Your task to perform on an android device: Open the map Image 0: 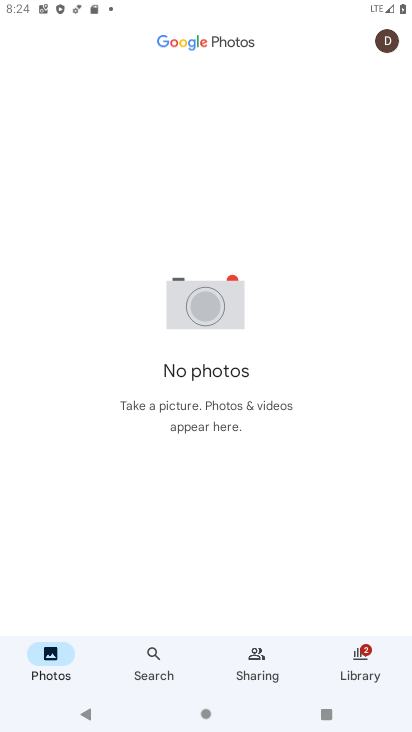
Step 0: press home button
Your task to perform on an android device: Open the map Image 1: 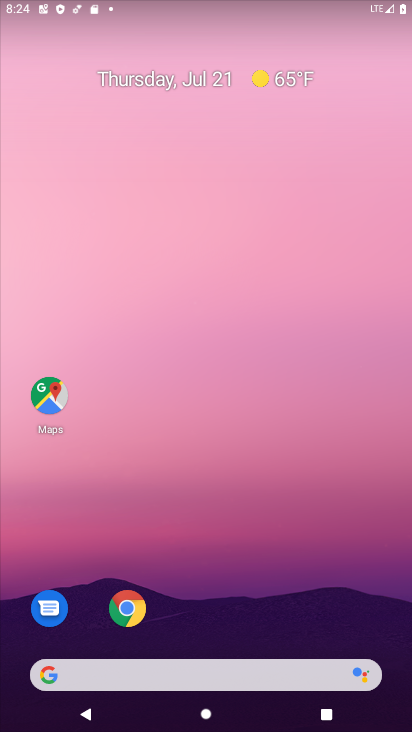
Step 1: click (48, 395)
Your task to perform on an android device: Open the map Image 2: 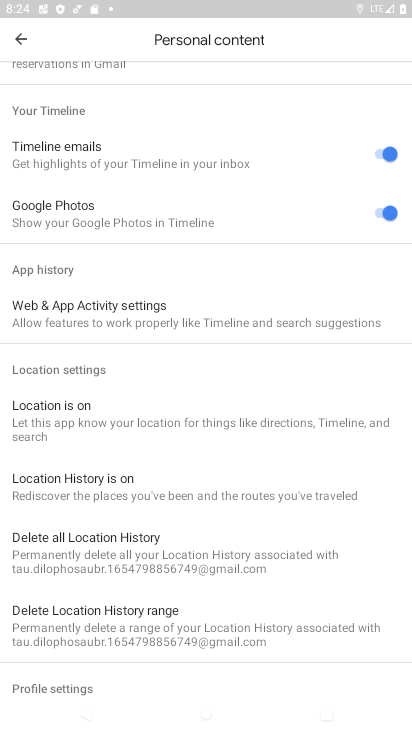
Step 2: task complete